Your task to perform on an android device: delete browsing data in the chrome app Image 0: 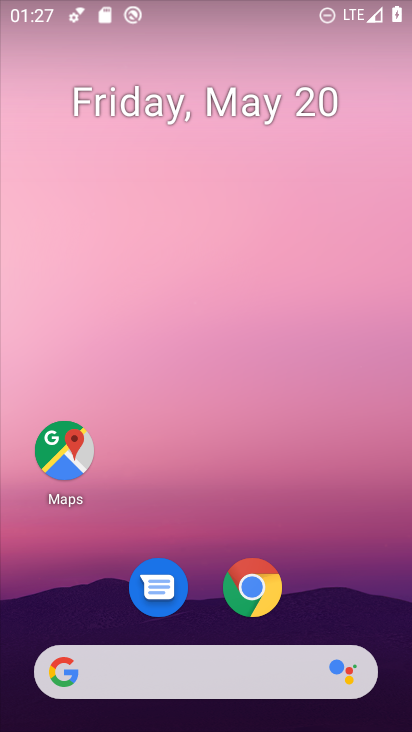
Step 0: drag from (367, 624) to (371, 240)
Your task to perform on an android device: delete browsing data in the chrome app Image 1: 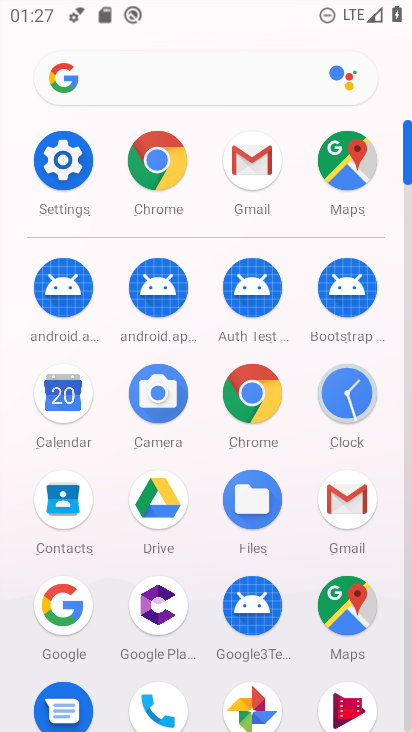
Step 1: click (262, 421)
Your task to perform on an android device: delete browsing data in the chrome app Image 2: 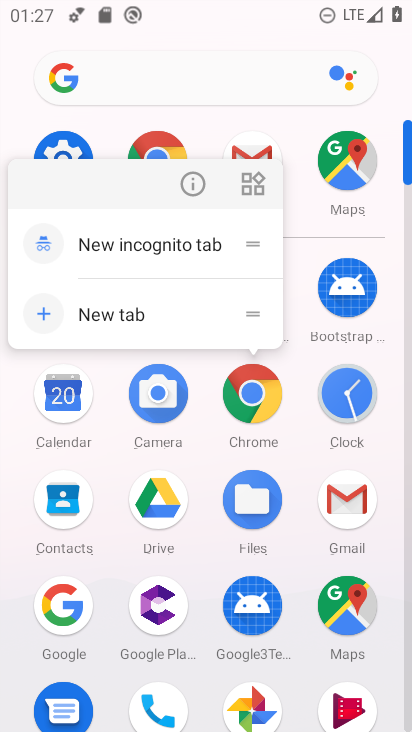
Step 2: click (262, 421)
Your task to perform on an android device: delete browsing data in the chrome app Image 3: 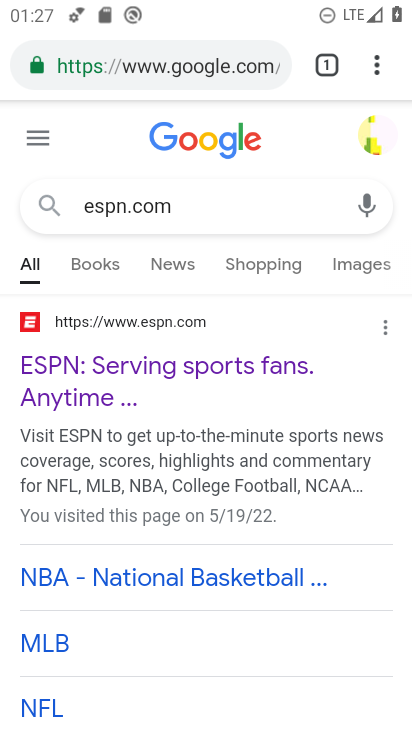
Step 3: click (381, 74)
Your task to perform on an android device: delete browsing data in the chrome app Image 4: 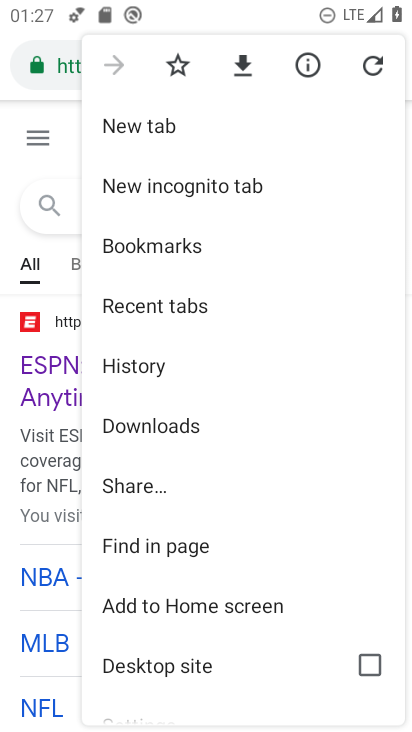
Step 4: drag from (321, 516) to (327, 423)
Your task to perform on an android device: delete browsing data in the chrome app Image 5: 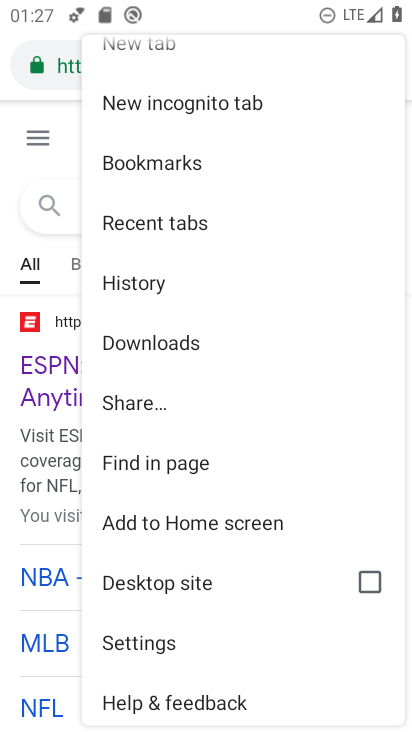
Step 5: drag from (317, 627) to (320, 524)
Your task to perform on an android device: delete browsing data in the chrome app Image 6: 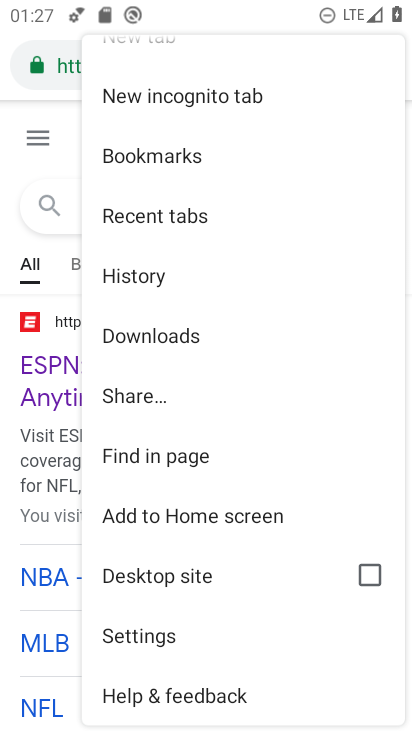
Step 6: click (193, 653)
Your task to perform on an android device: delete browsing data in the chrome app Image 7: 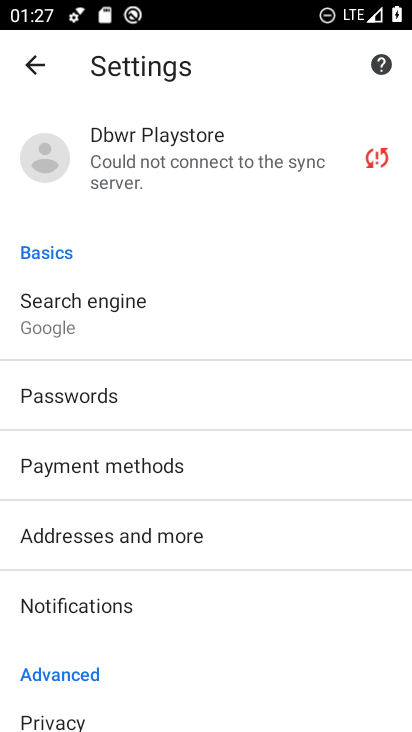
Step 7: drag from (292, 586) to (299, 481)
Your task to perform on an android device: delete browsing data in the chrome app Image 8: 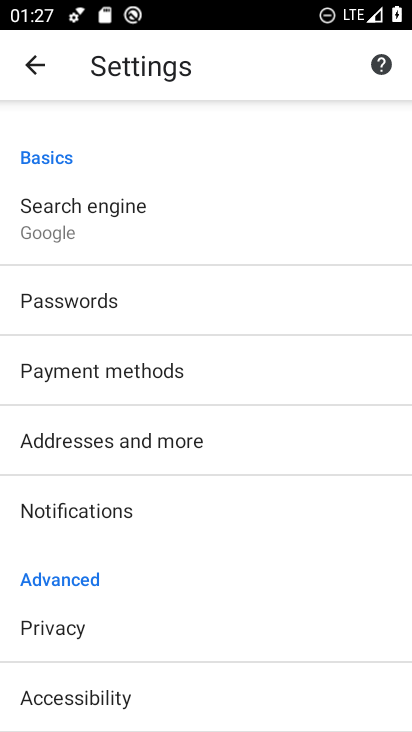
Step 8: drag from (322, 612) to (328, 518)
Your task to perform on an android device: delete browsing data in the chrome app Image 9: 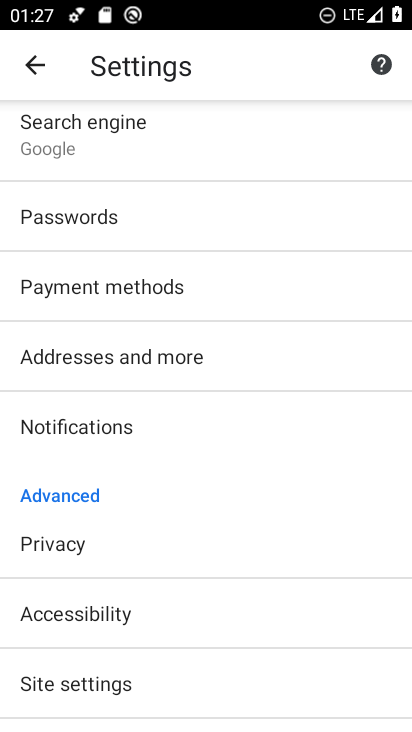
Step 9: drag from (320, 648) to (320, 562)
Your task to perform on an android device: delete browsing data in the chrome app Image 10: 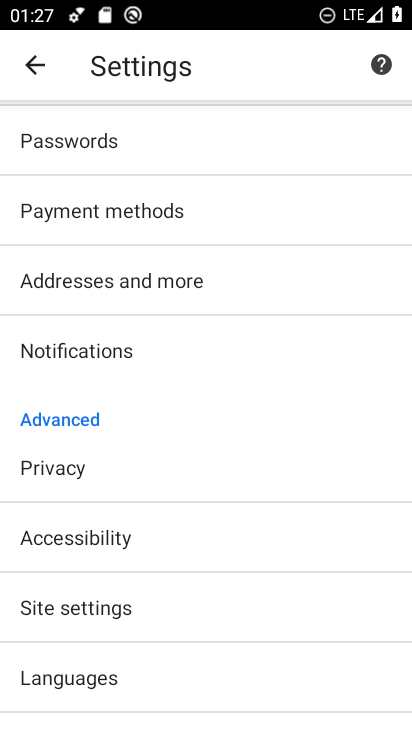
Step 10: drag from (317, 643) to (325, 513)
Your task to perform on an android device: delete browsing data in the chrome app Image 11: 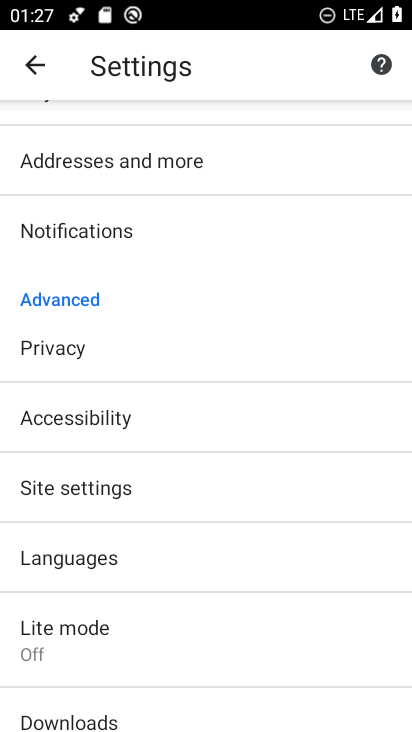
Step 11: drag from (314, 637) to (326, 512)
Your task to perform on an android device: delete browsing data in the chrome app Image 12: 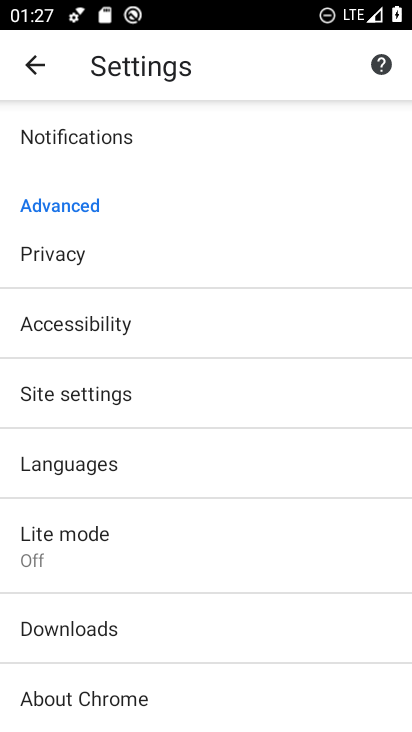
Step 12: drag from (323, 639) to (325, 555)
Your task to perform on an android device: delete browsing data in the chrome app Image 13: 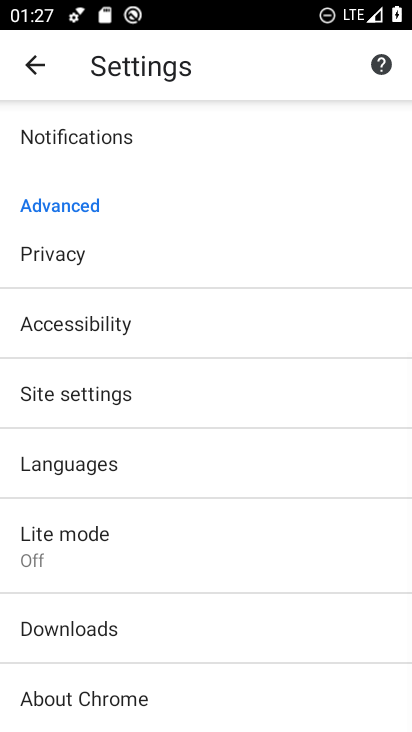
Step 13: drag from (316, 419) to (316, 496)
Your task to perform on an android device: delete browsing data in the chrome app Image 14: 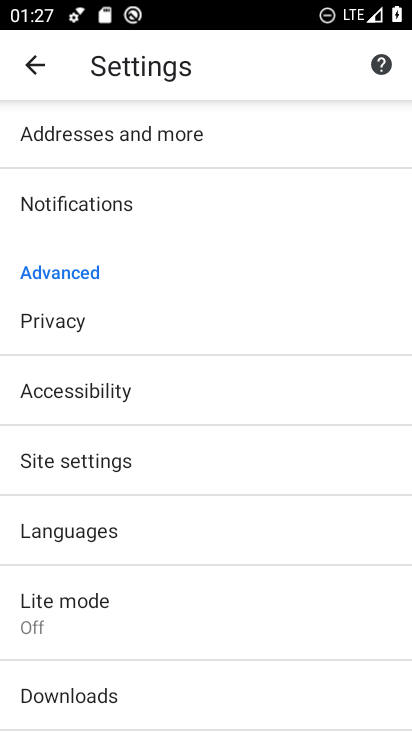
Step 14: drag from (330, 339) to (324, 393)
Your task to perform on an android device: delete browsing data in the chrome app Image 15: 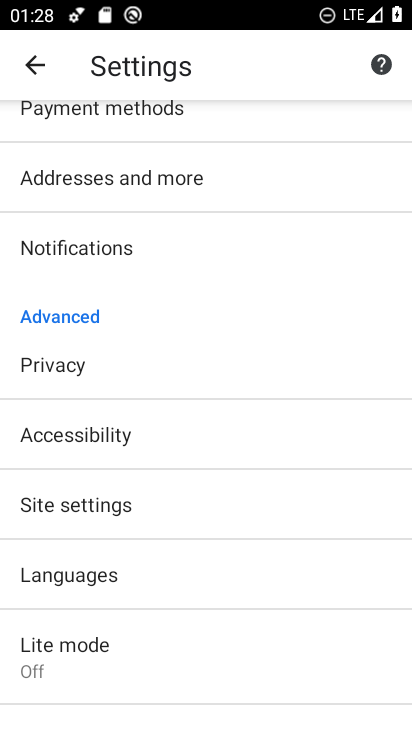
Step 15: drag from (334, 331) to (335, 459)
Your task to perform on an android device: delete browsing data in the chrome app Image 16: 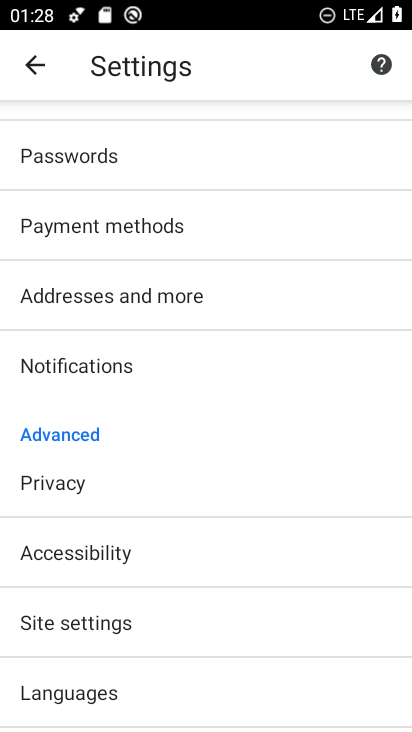
Step 16: drag from (332, 382) to (336, 417)
Your task to perform on an android device: delete browsing data in the chrome app Image 17: 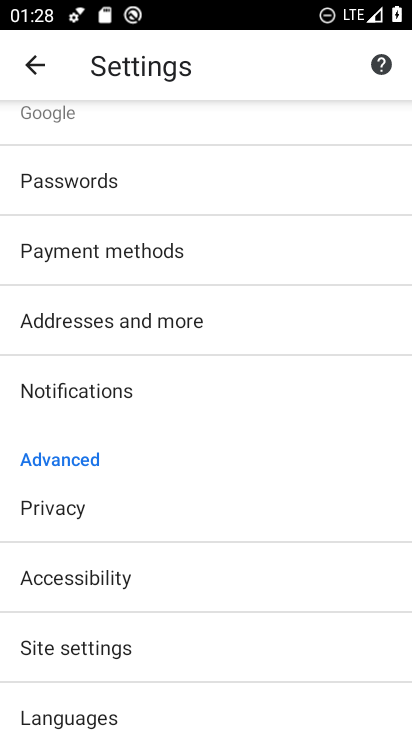
Step 17: drag from (346, 338) to (347, 445)
Your task to perform on an android device: delete browsing data in the chrome app Image 18: 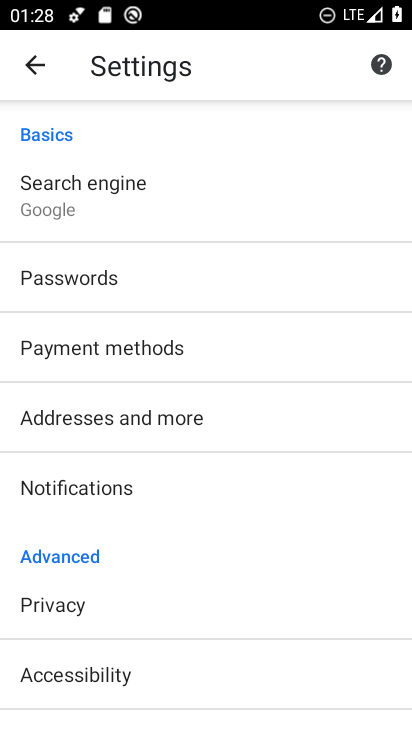
Step 18: drag from (338, 351) to (330, 406)
Your task to perform on an android device: delete browsing data in the chrome app Image 19: 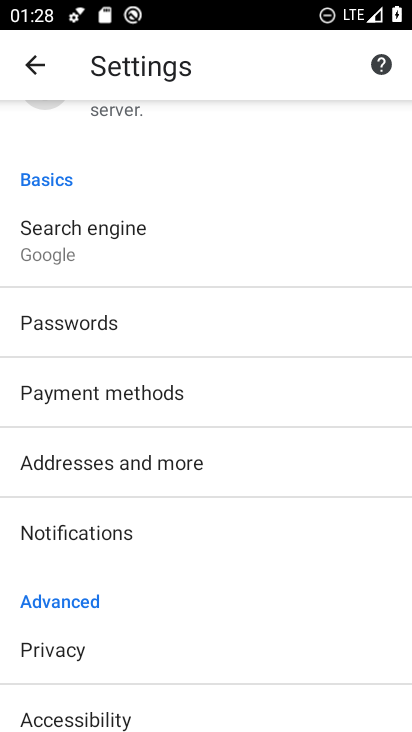
Step 19: drag from (331, 286) to (331, 392)
Your task to perform on an android device: delete browsing data in the chrome app Image 20: 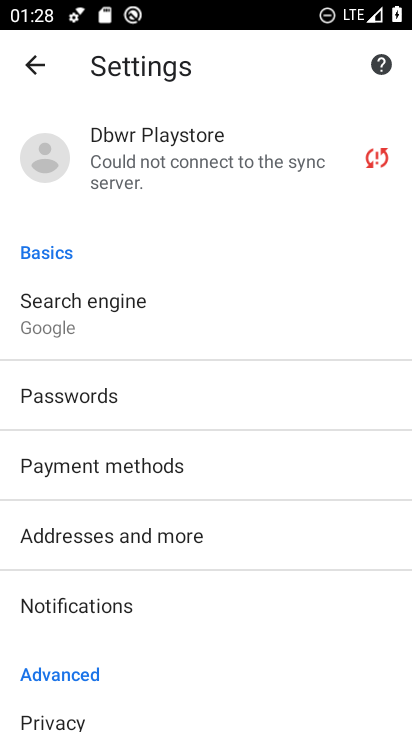
Step 20: drag from (318, 445) to (321, 287)
Your task to perform on an android device: delete browsing data in the chrome app Image 21: 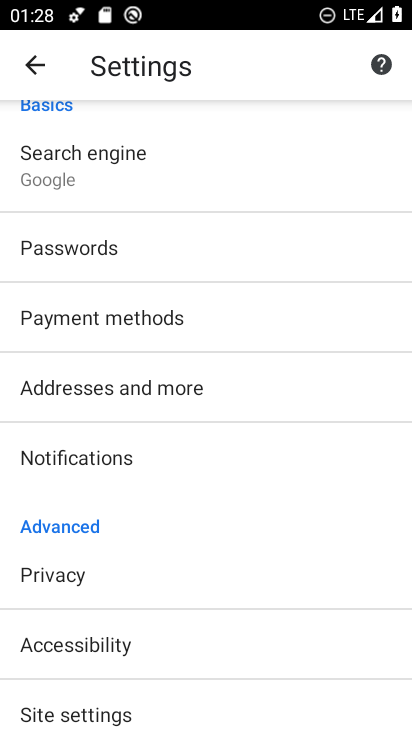
Step 21: drag from (322, 572) to (324, 447)
Your task to perform on an android device: delete browsing data in the chrome app Image 22: 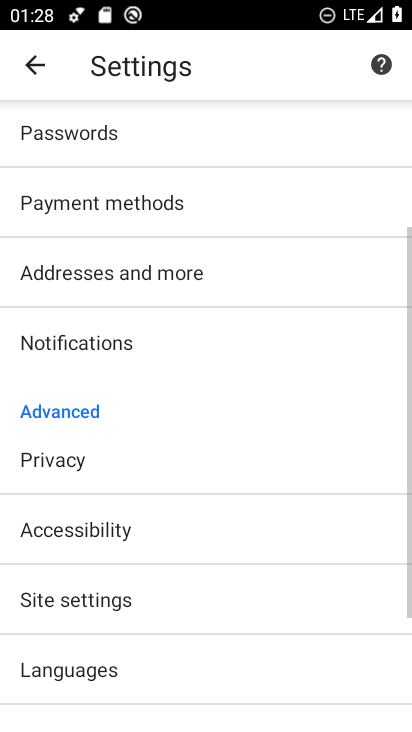
Step 22: click (196, 453)
Your task to perform on an android device: delete browsing data in the chrome app Image 23: 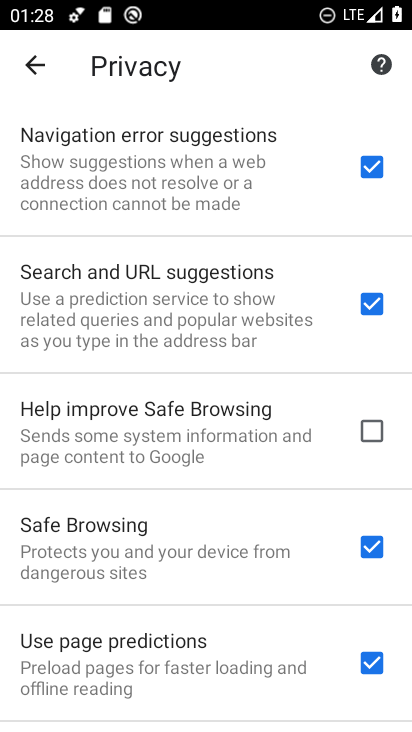
Step 23: drag from (264, 594) to (271, 383)
Your task to perform on an android device: delete browsing data in the chrome app Image 24: 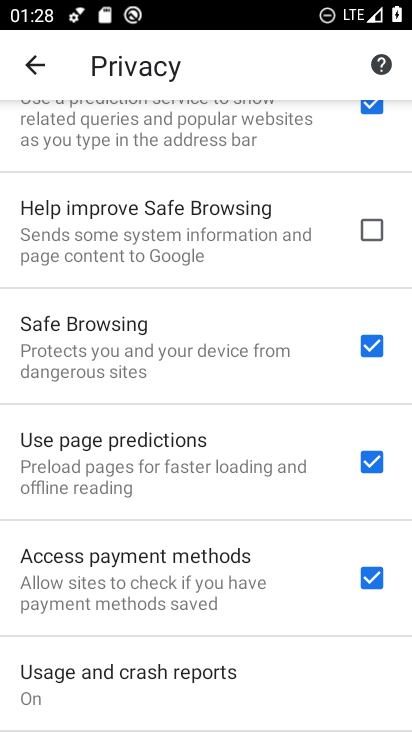
Step 24: drag from (289, 621) to (288, 505)
Your task to perform on an android device: delete browsing data in the chrome app Image 25: 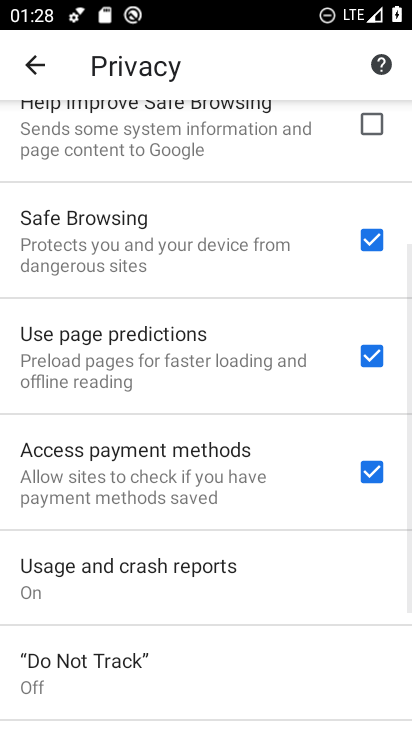
Step 25: drag from (277, 664) to (278, 525)
Your task to perform on an android device: delete browsing data in the chrome app Image 26: 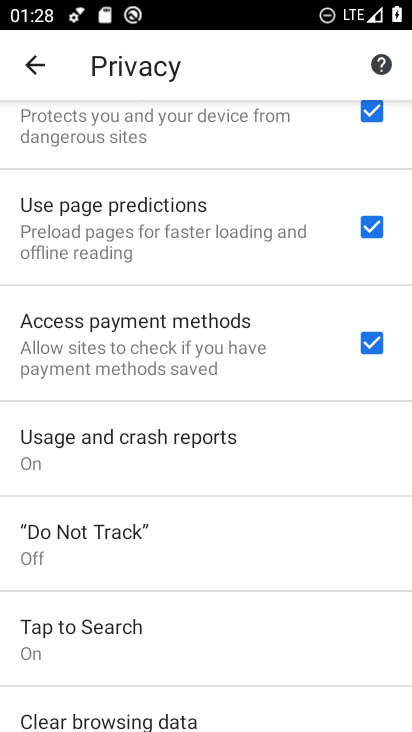
Step 26: drag from (275, 661) to (281, 580)
Your task to perform on an android device: delete browsing data in the chrome app Image 27: 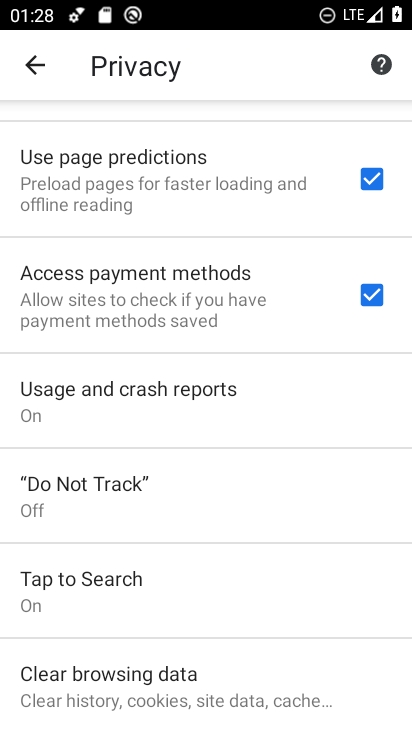
Step 27: click (239, 693)
Your task to perform on an android device: delete browsing data in the chrome app Image 28: 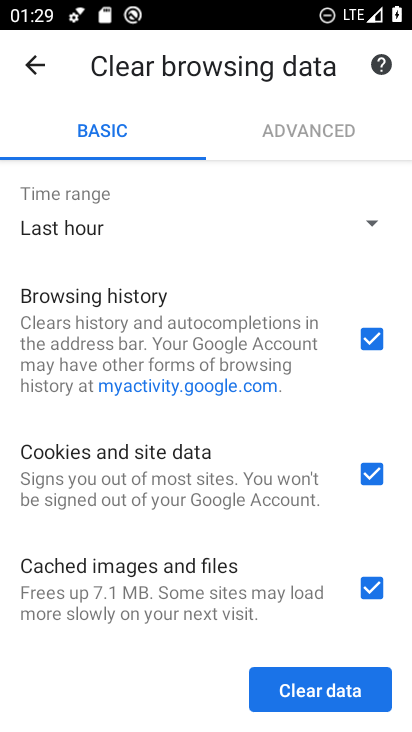
Step 28: click (323, 702)
Your task to perform on an android device: delete browsing data in the chrome app Image 29: 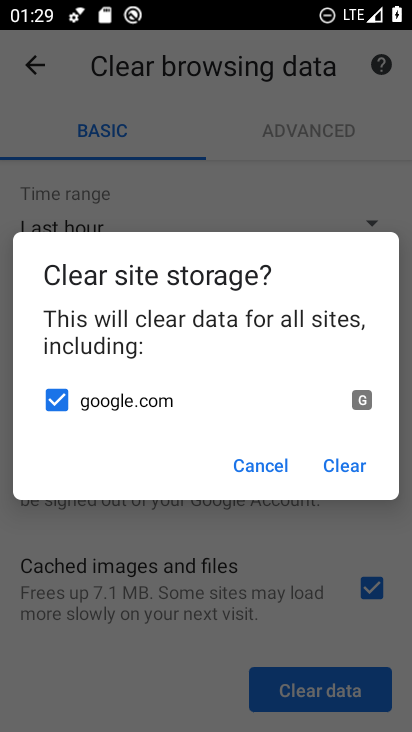
Step 29: click (321, 453)
Your task to perform on an android device: delete browsing data in the chrome app Image 30: 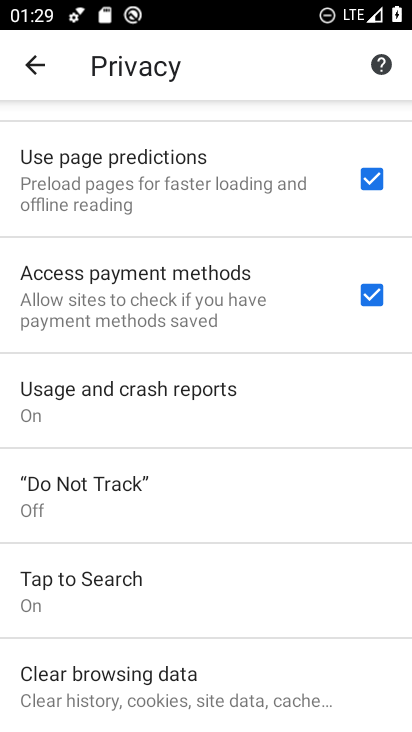
Step 30: task complete